Your task to perform on an android device: refresh tabs in the chrome app Image 0: 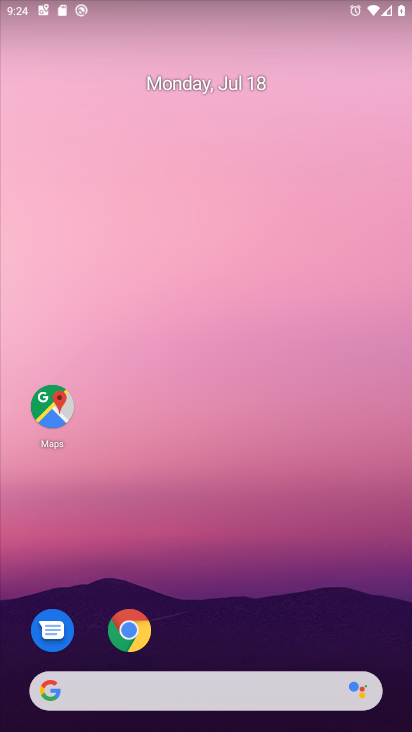
Step 0: click (132, 623)
Your task to perform on an android device: refresh tabs in the chrome app Image 1: 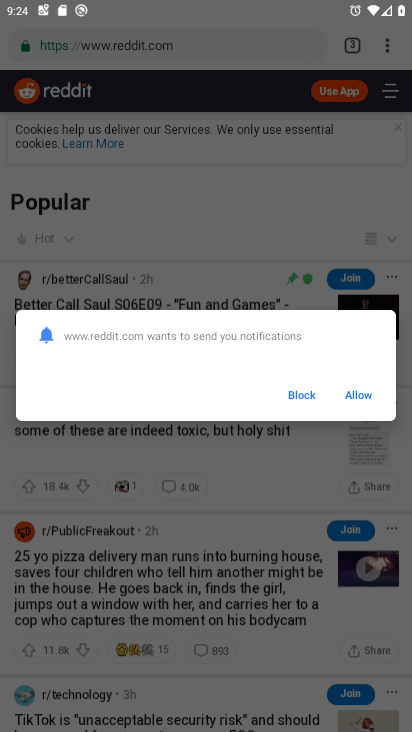
Step 1: click (354, 395)
Your task to perform on an android device: refresh tabs in the chrome app Image 2: 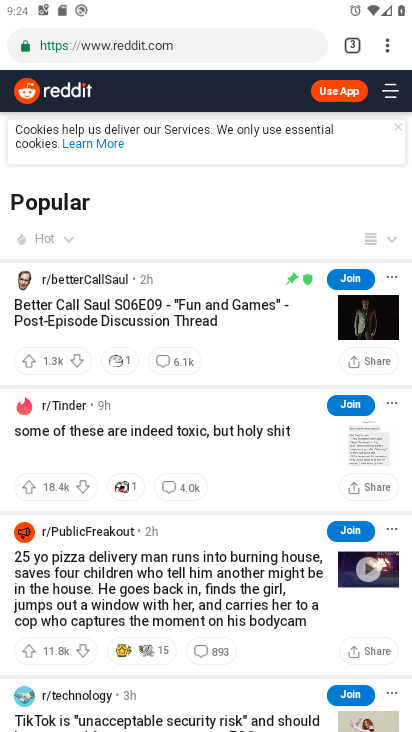
Step 2: click (383, 49)
Your task to perform on an android device: refresh tabs in the chrome app Image 3: 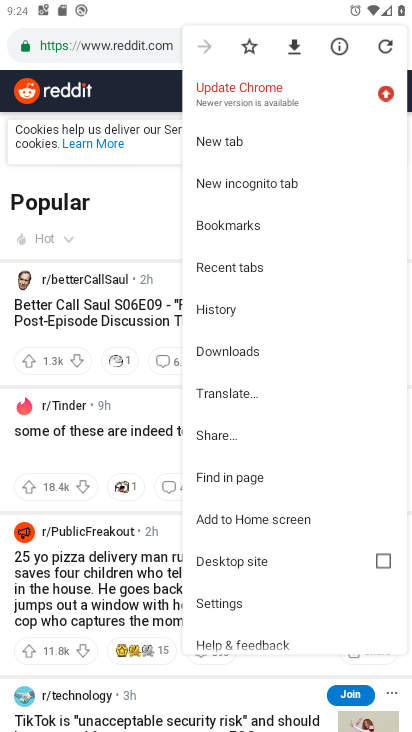
Step 3: click (380, 51)
Your task to perform on an android device: refresh tabs in the chrome app Image 4: 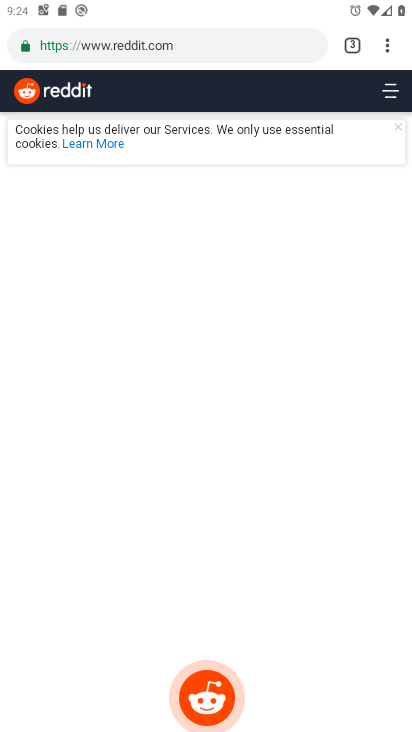
Step 4: task complete